Your task to perform on an android device: set the timer Image 0: 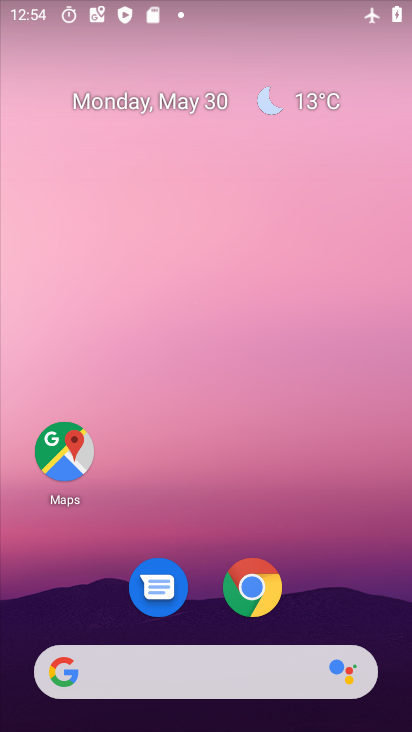
Step 0: drag from (293, 378) to (279, 30)
Your task to perform on an android device: set the timer Image 1: 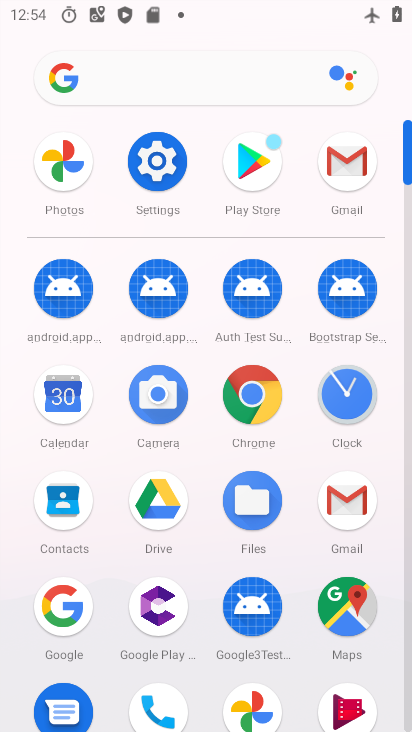
Step 1: click (360, 392)
Your task to perform on an android device: set the timer Image 2: 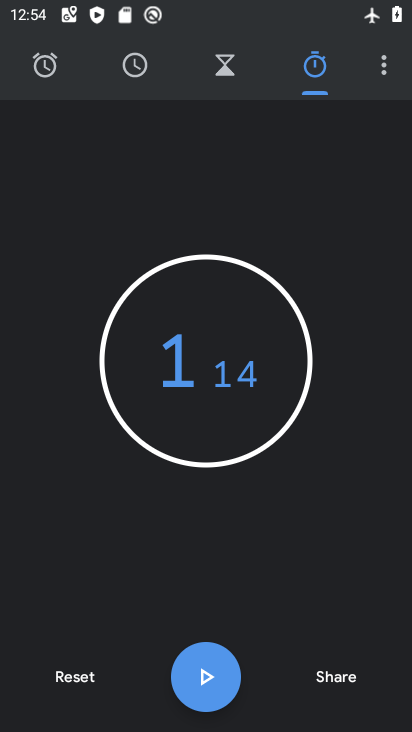
Step 2: click (240, 69)
Your task to perform on an android device: set the timer Image 3: 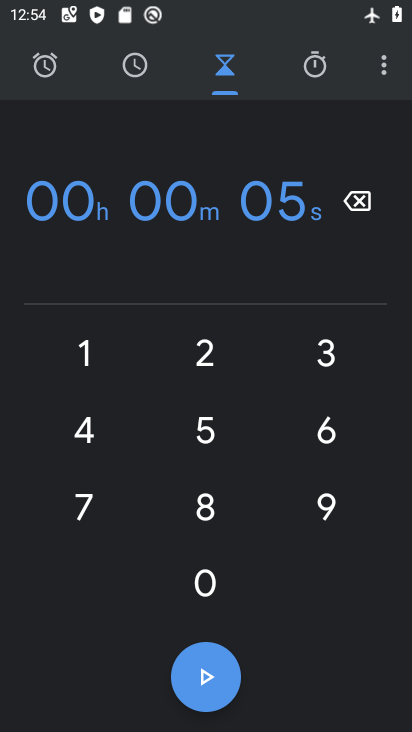
Step 3: task complete